Your task to perform on an android device: Open Google Maps Image 0: 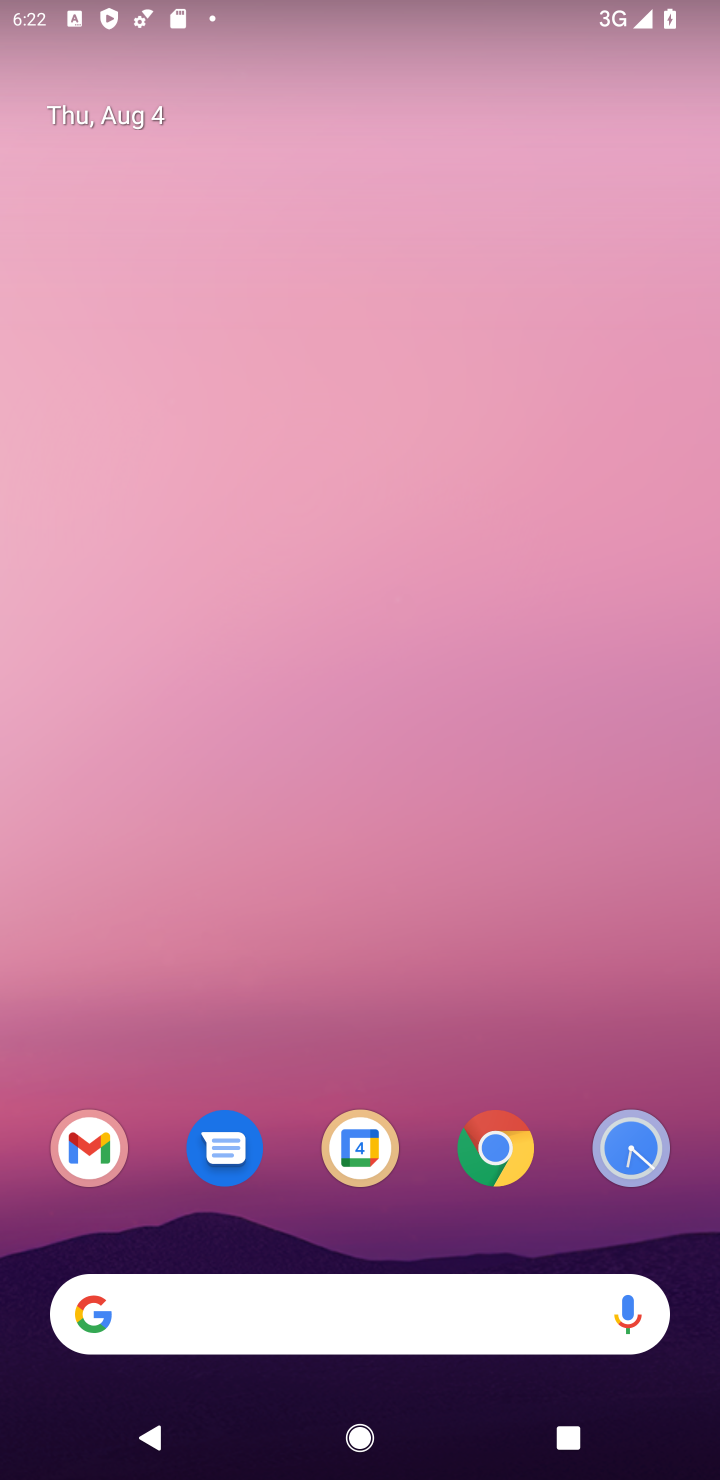
Step 0: drag from (543, 949) to (531, 345)
Your task to perform on an android device: Open Google Maps Image 1: 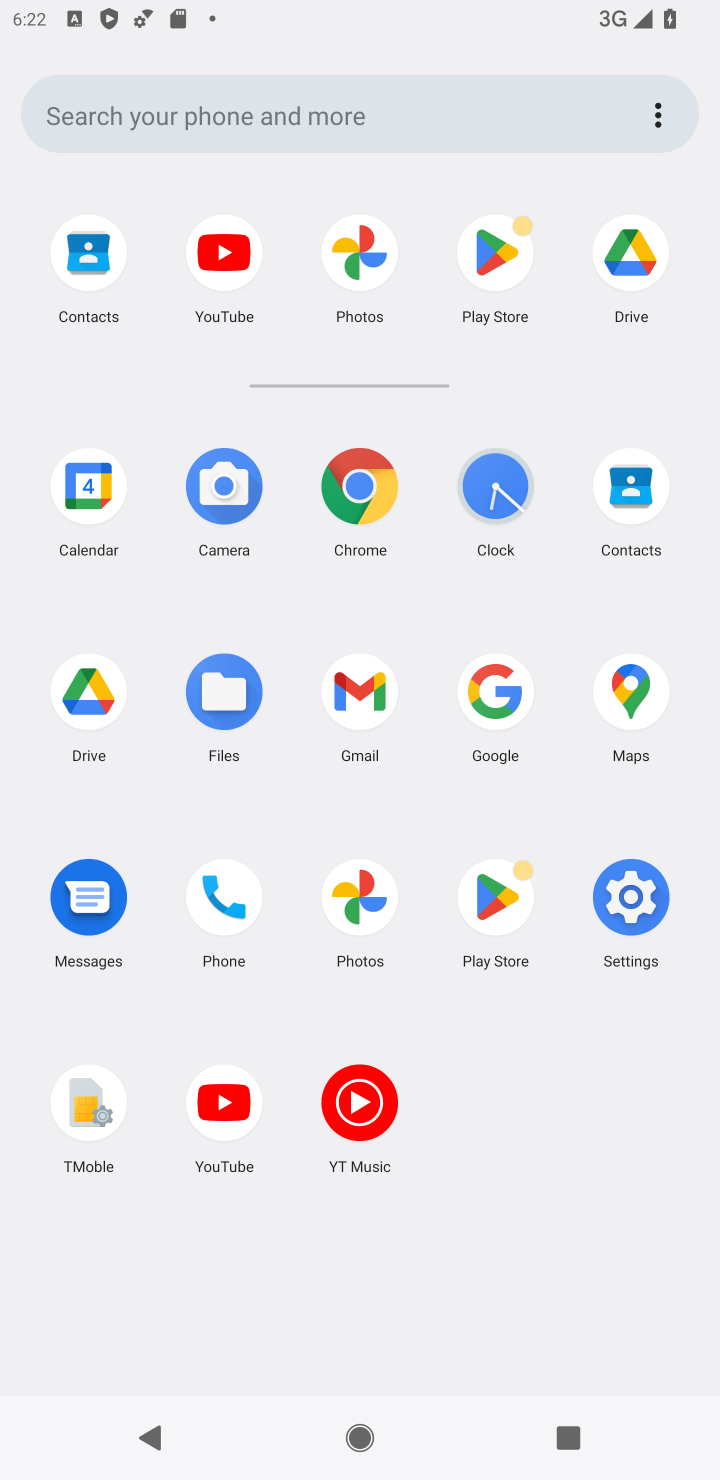
Step 1: click (627, 688)
Your task to perform on an android device: Open Google Maps Image 2: 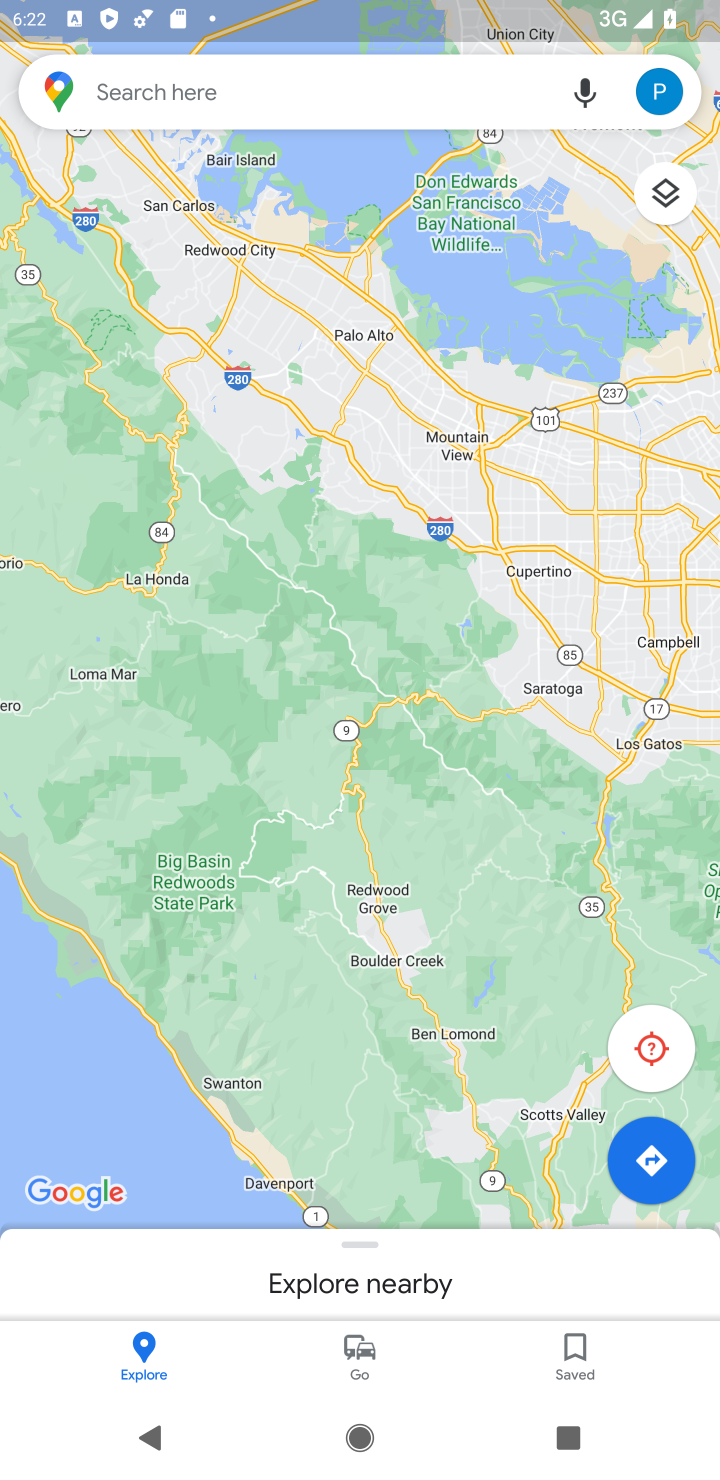
Step 2: task complete